Your task to perform on an android device: change notification settings in the gmail app Image 0: 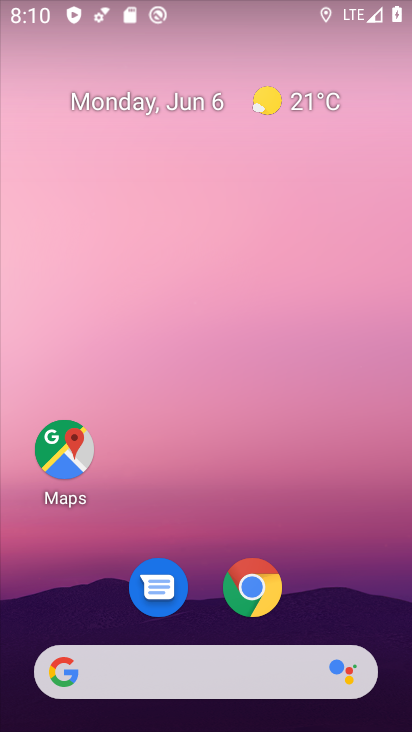
Step 0: drag from (343, 574) to (321, 185)
Your task to perform on an android device: change notification settings in the gmail app Image 1: 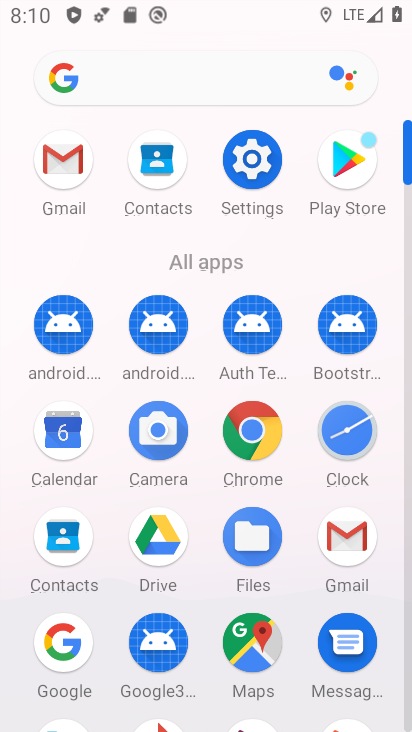
Step 1: click (72, 153)
Your task to perform on an android device: change notification settings in the gmail app Image 2: 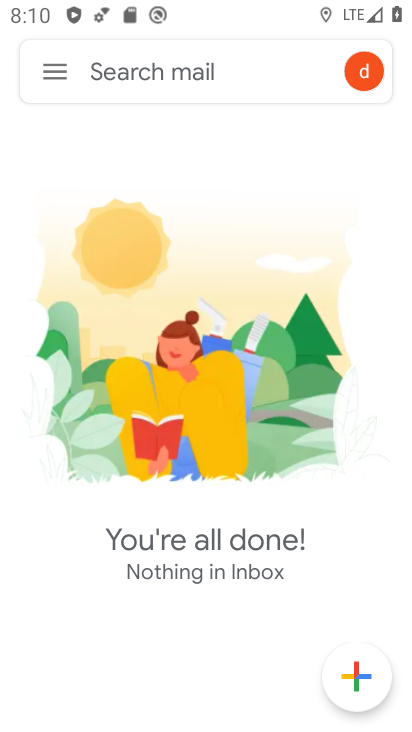
Step 2: click (70, 94)
Your task to perform on an android device: change notification settings in the gmail app Image 3: 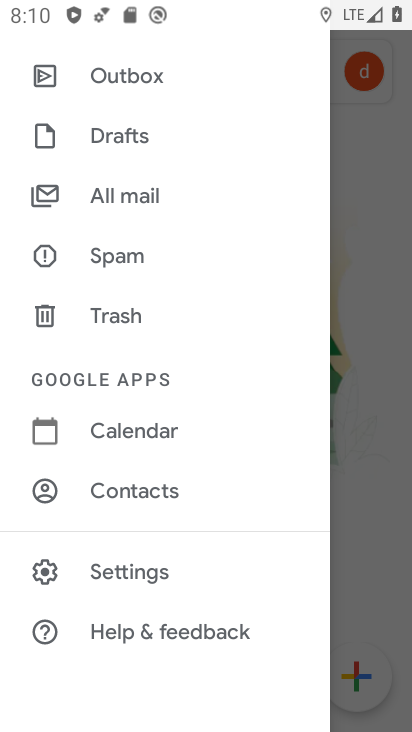
Step 3: click (148, 581)
Your task to perform on an android device: change notification settings in the gmail app Image 4: 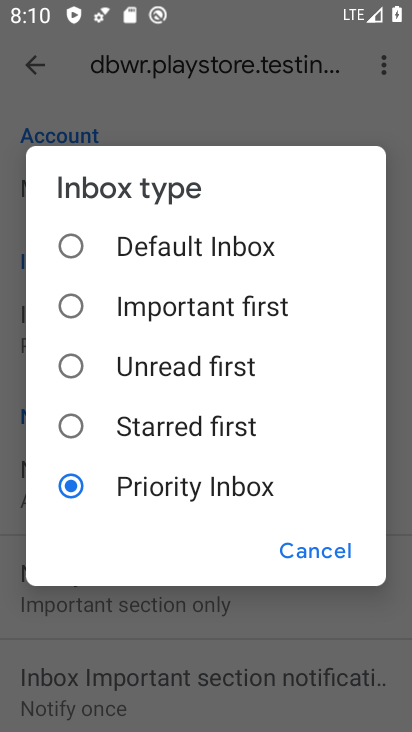
Step 4: click (296, 553)
Your task to perform on an android device: change notification settings in the gmail app Image 5: 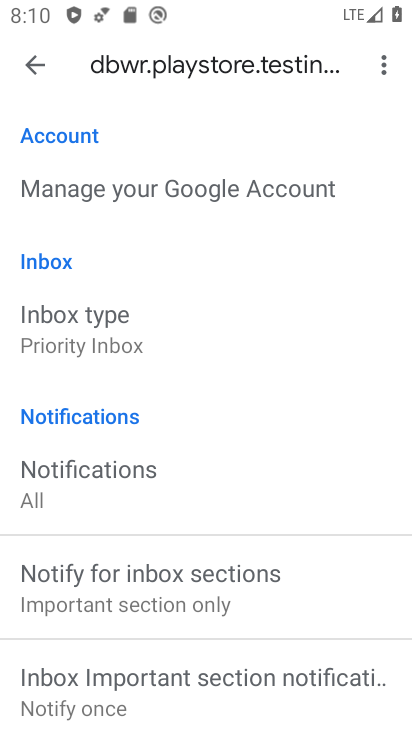
Step 5: drag from (166, 621) to (215, 325)
Your task to perform on an android device: change notification settings in the gmail app Image 6: 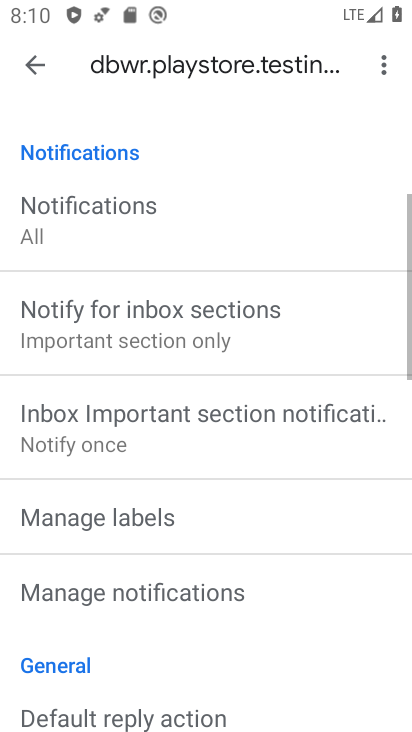
Step 6: click (220, 312)
Your task to perform on an android device: change notification settings in the gmail app Image 7: 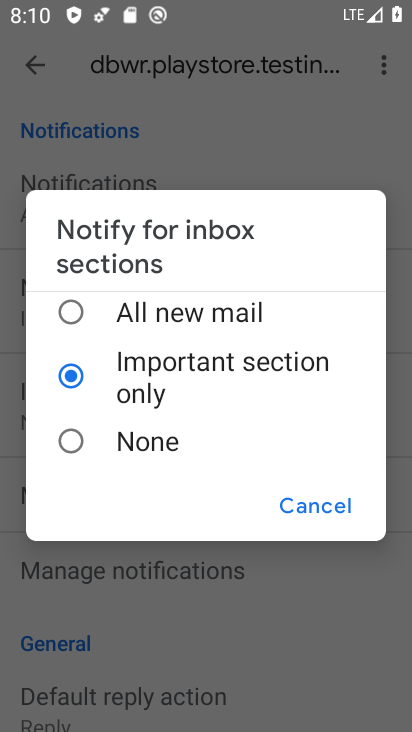
Step 7: click (313, 506)
Your task to perform on an android device: change notification settings in the gmail app Image 8: 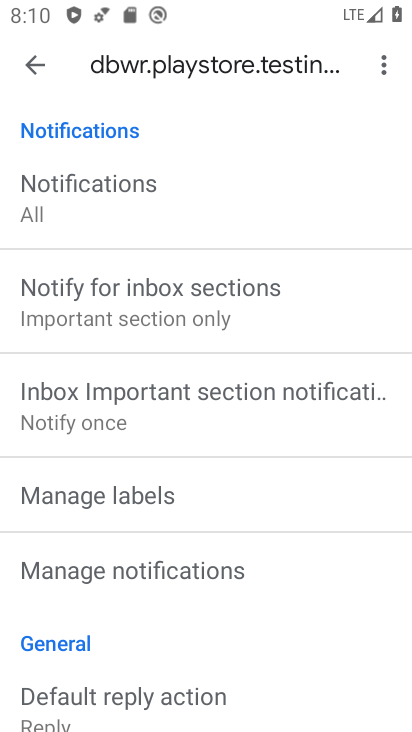
Step 8: click (220, 579)
Your task to perform on an android device: change notification settings in the gmail app Image 9: 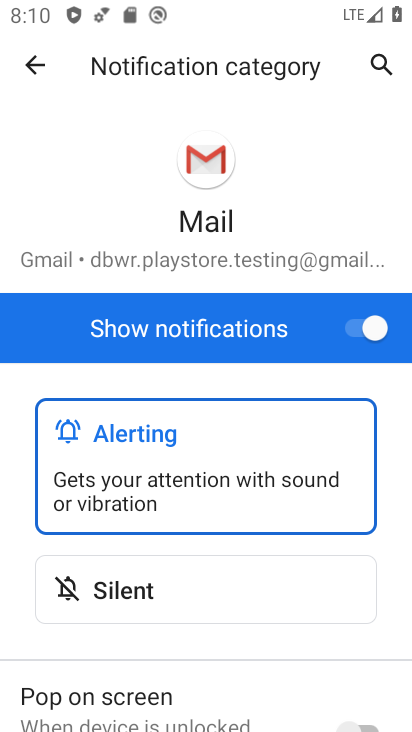
Step 9: drag from (322, 586) to (291, 100)
Your task to perform on an android device: change notification settings in the gmail app Image 10: 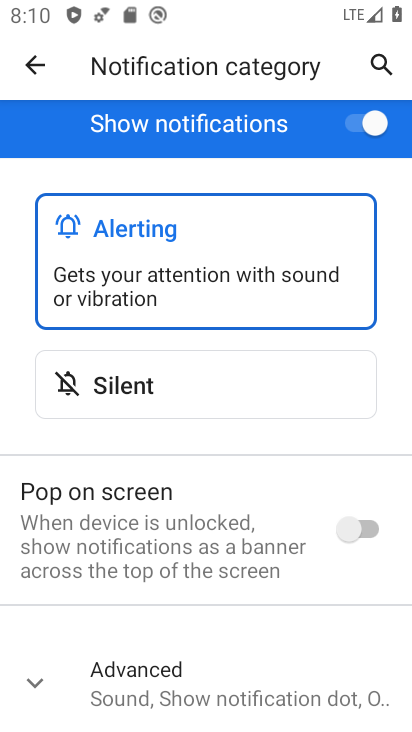
Step 10: click (376, 120)
Your task to perform on an android device: change notification settings in the gmail app Image 11: 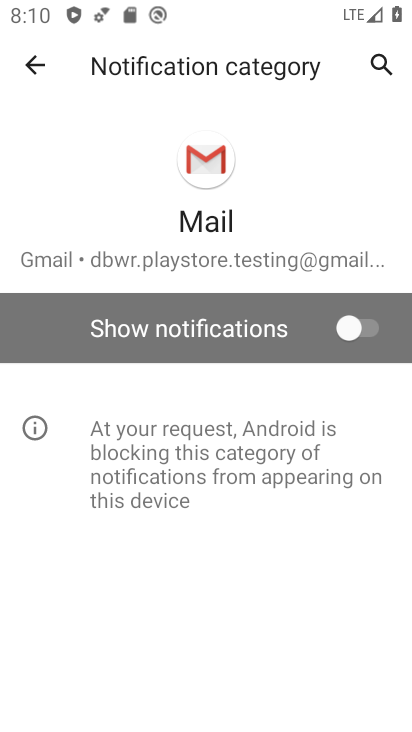
Step 11: task complete